Your task to perform on an android device: open app "Microsoft Authenticator" (install if not already installed) Image 0: 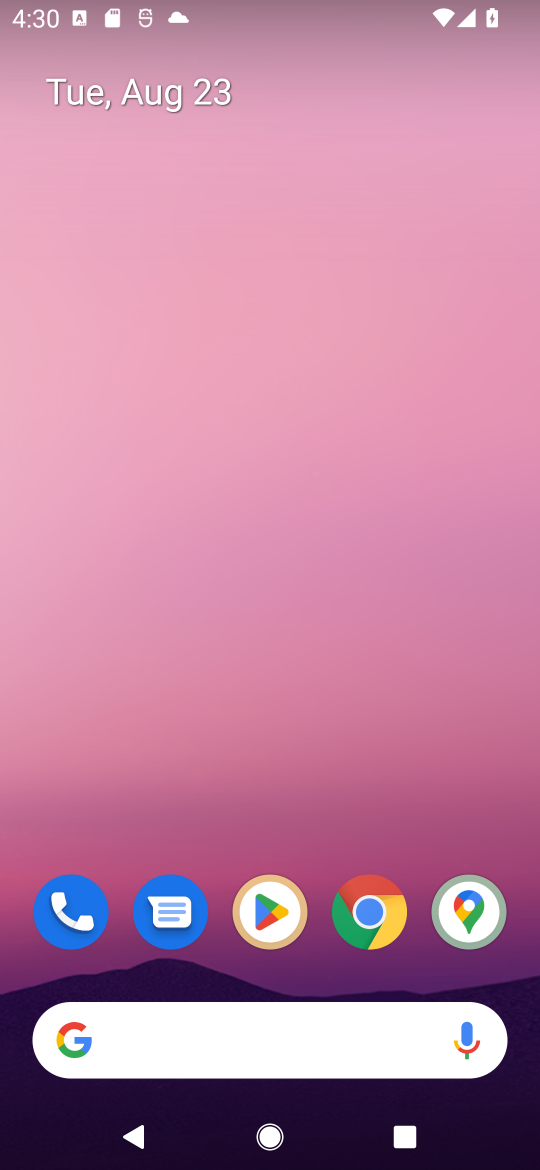
Step 0: drag from (202, 378) to (257, 95)
Your task to perform on an android device: open app "Microsoft Authenticator" (install if not already installed) Image 1: 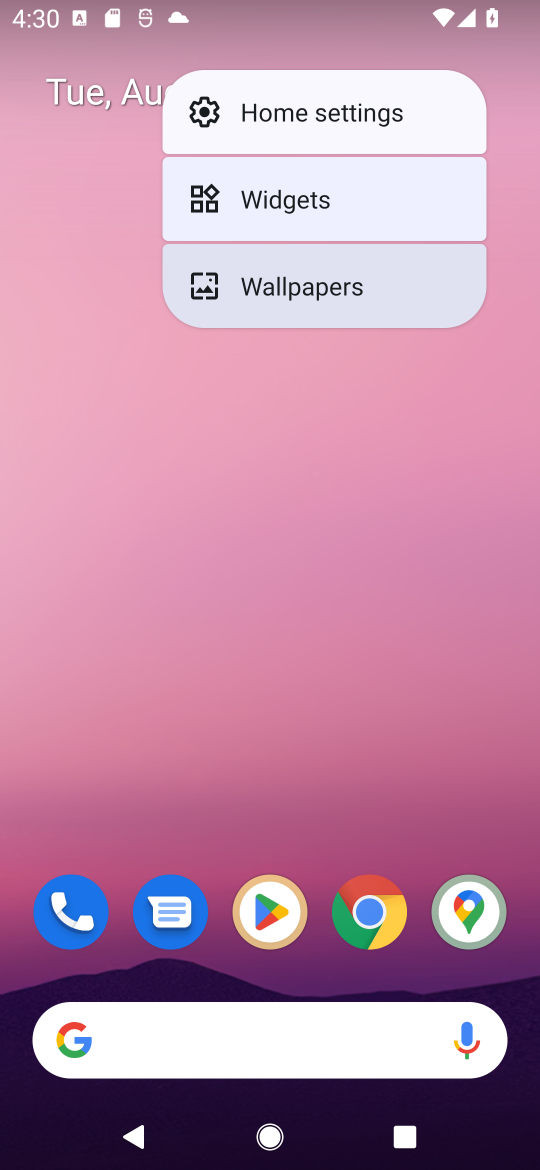
Step 1: drag from (205, 1067) to (218, 23)
Your task to perform on an android device: open app "Microsoft Authenticator" (install if not already installed) Image 2: 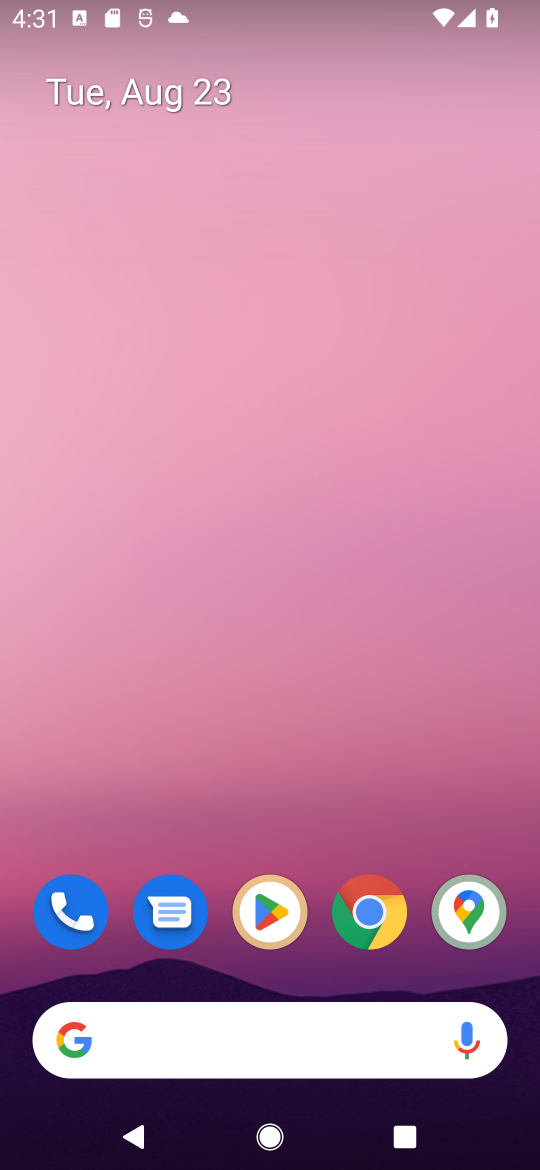
Step 2: click (231, 79)
Your task to perform on an android device: open app "Microsoft Authenticator" (install if not already installed) Image 3: 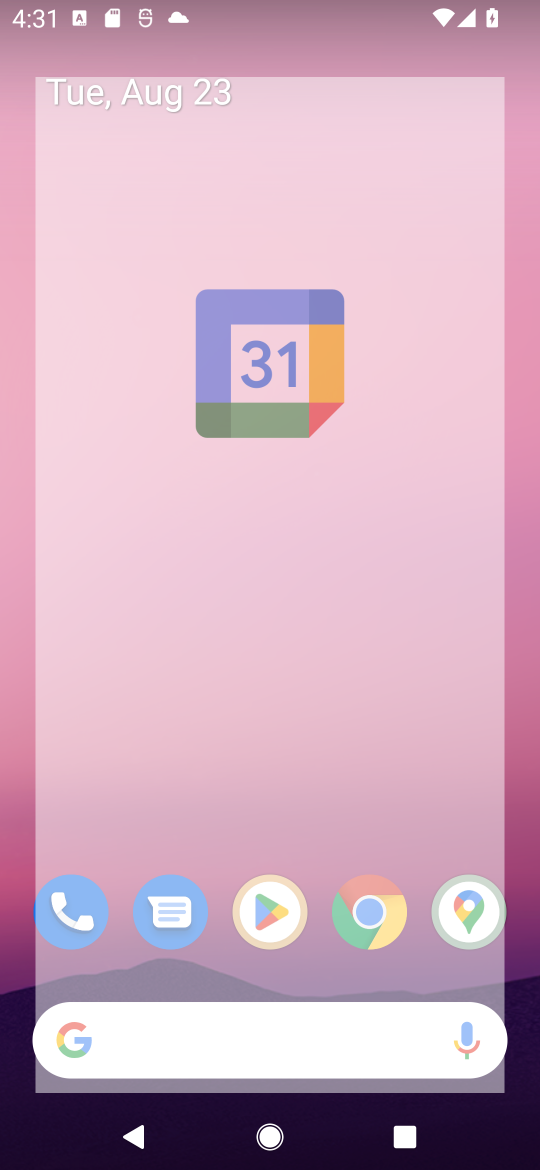
Step 3: drag from (211, 1097) to (439, 473)
Your task to perform on an android device: open app "Microsoft Authenticator" (install if not already installed) Image 4: 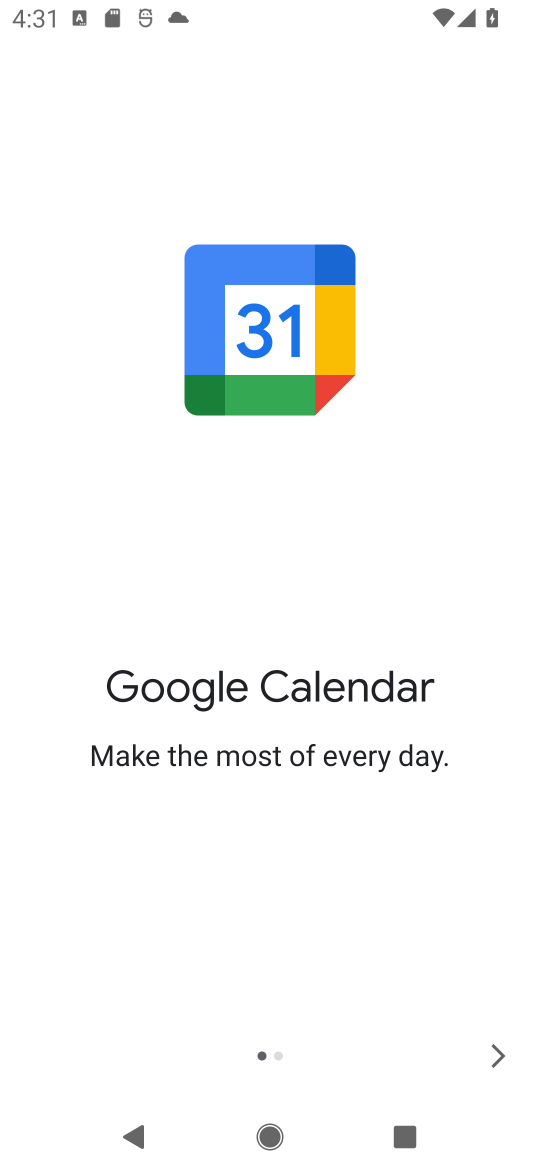
Step 4: press home button
Your task to perform on an android device: open app "Microsoft Authenticator" (install if not already installed) Image 5: 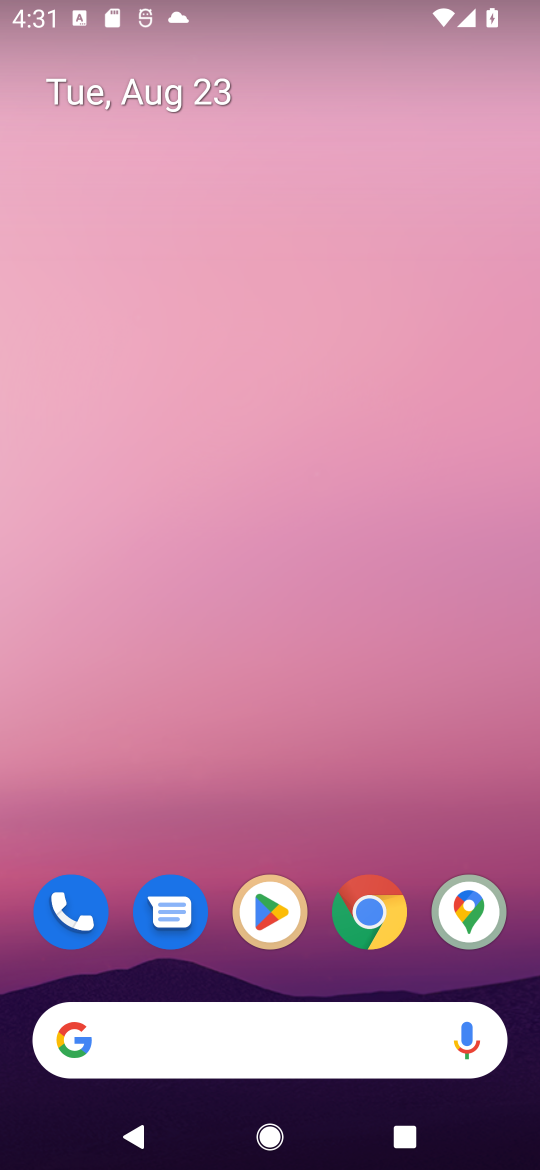
Step 5: drag from (182, 1051) to (313, 140)
Your task to perform on an android device: open app "Microsoft Authenticator" (install if not already installed) Image 6: 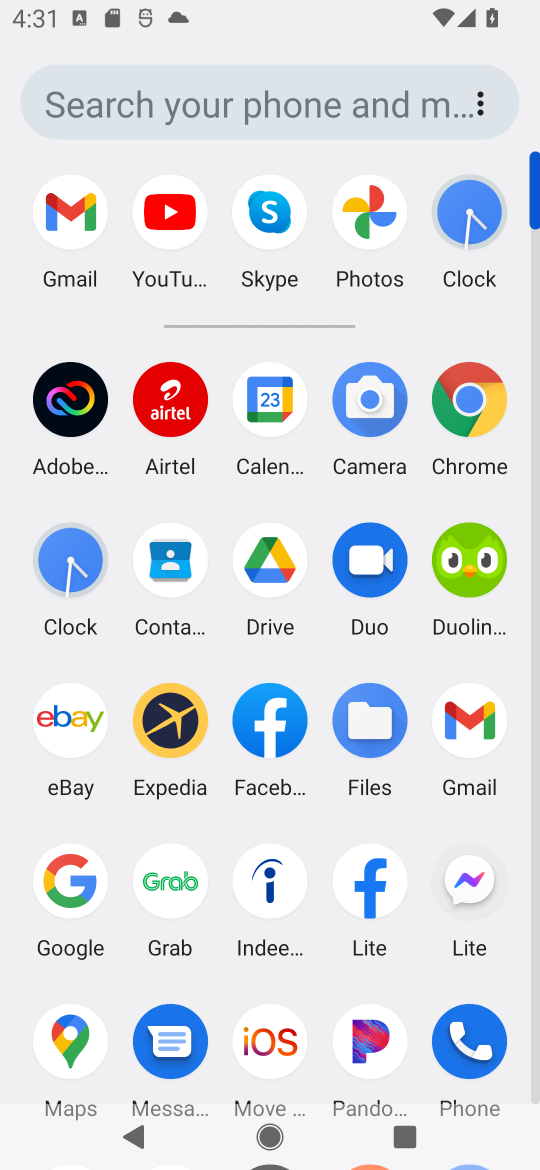
Step 6: drag from (215, 915) to (312, 353)
Your task to perform on an android device: open app "Microsoft Authenticator" (install if not already installed) Image 7: 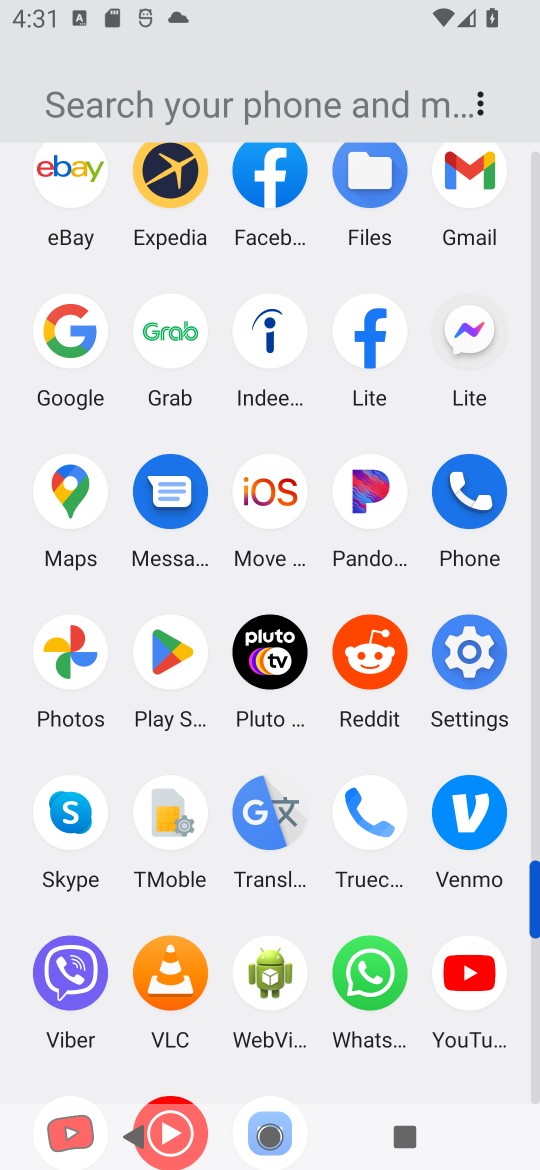
Step 7: click (172, 653)
Your task to perform on an android device: open app "Microsoft Authenticator" (install if not already installed) Image 8: 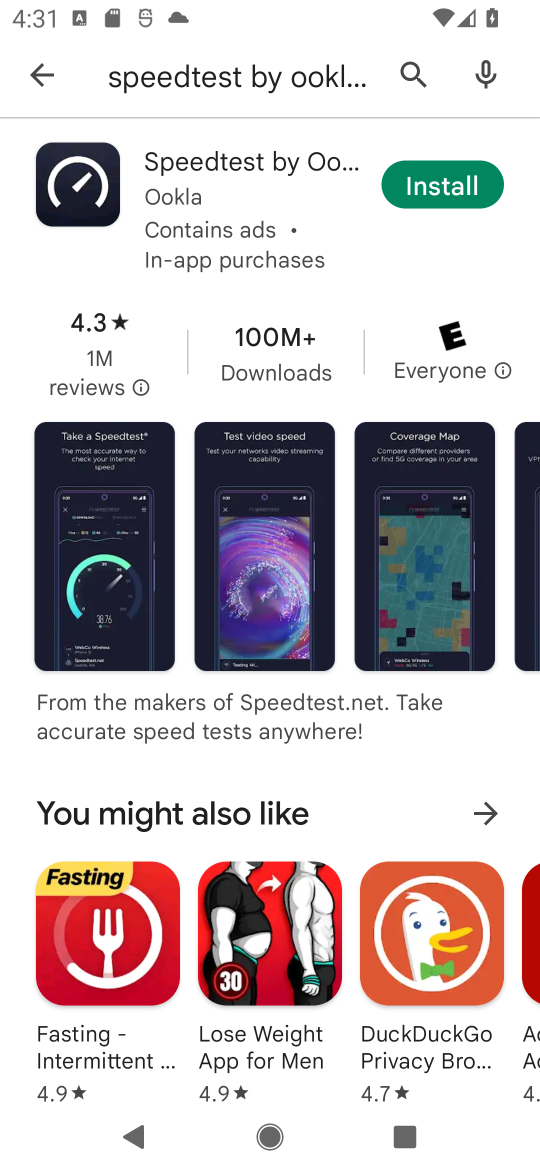
Step 8: press back button
Your task to perform on an android device: open app "Microsoft Authenticator" (install if not already installed) Image 9: 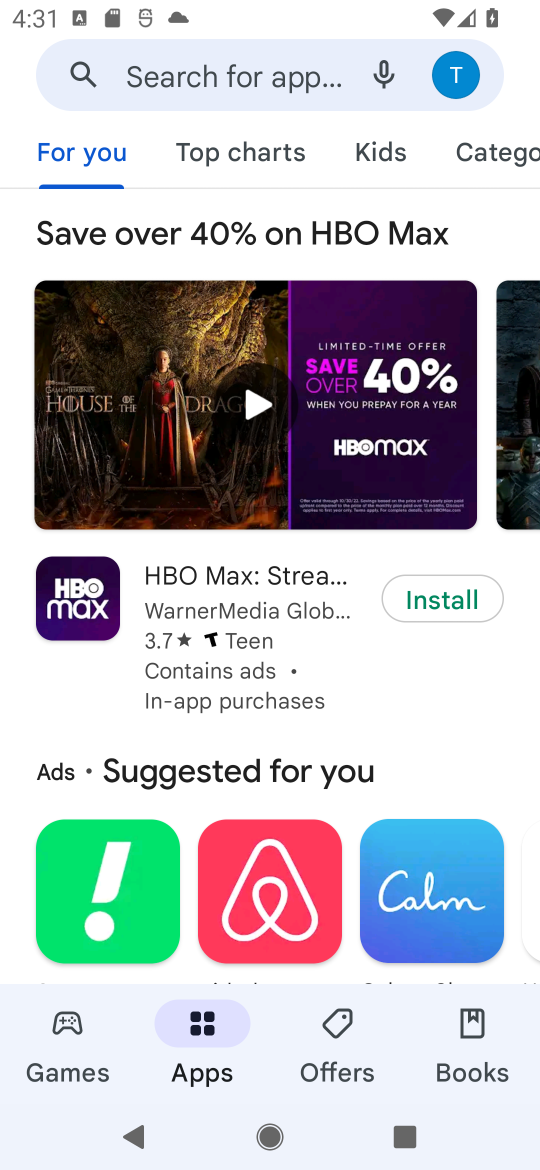
Step 9: click (289, 79)
Your task to perform on an android device: open app "Microsoft Authenticator" (install if not already installed) Image 10: 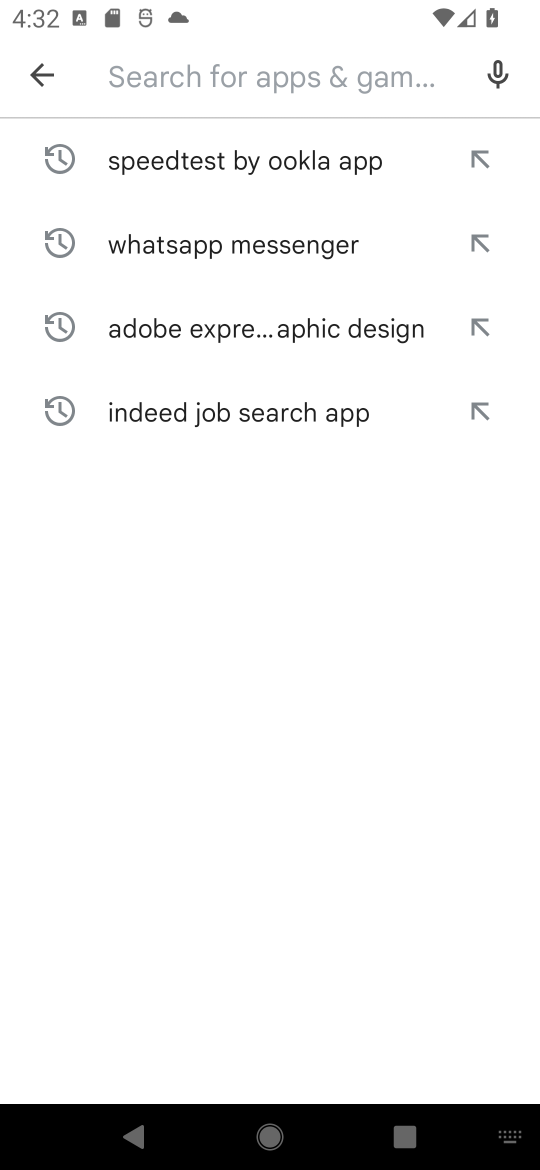
Step 10: click (167, 68)
Your task to perform on an android device: open app "Microsoft Authenticator" (install if not already installed) Image 11: 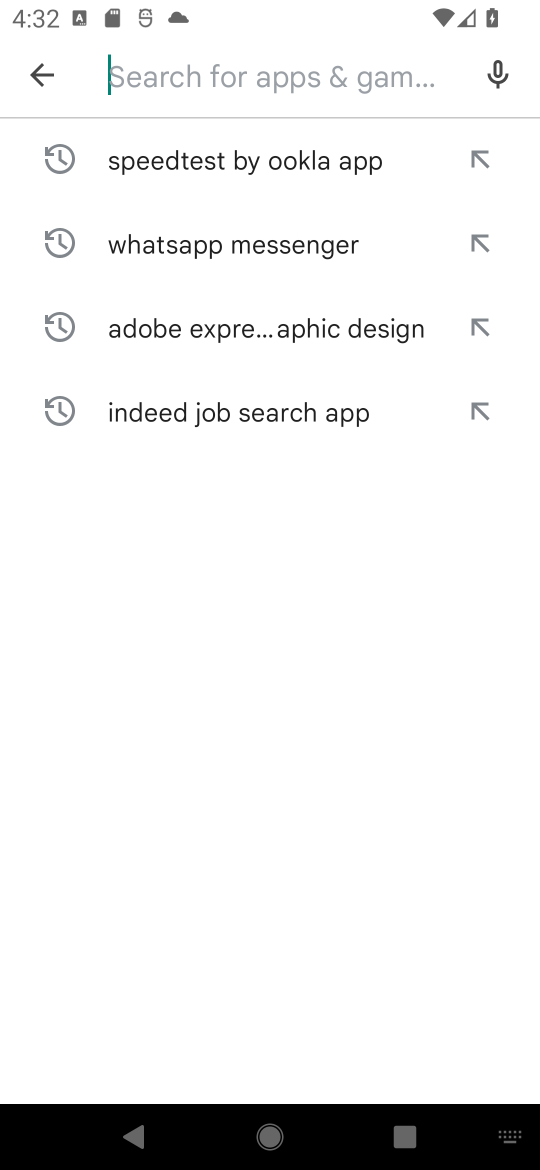
Step 11: type "Microsoft Authenticator"
Your task to perform on an android device: open app "Microsoft Authenticator" (install if not already installed) Image 12: 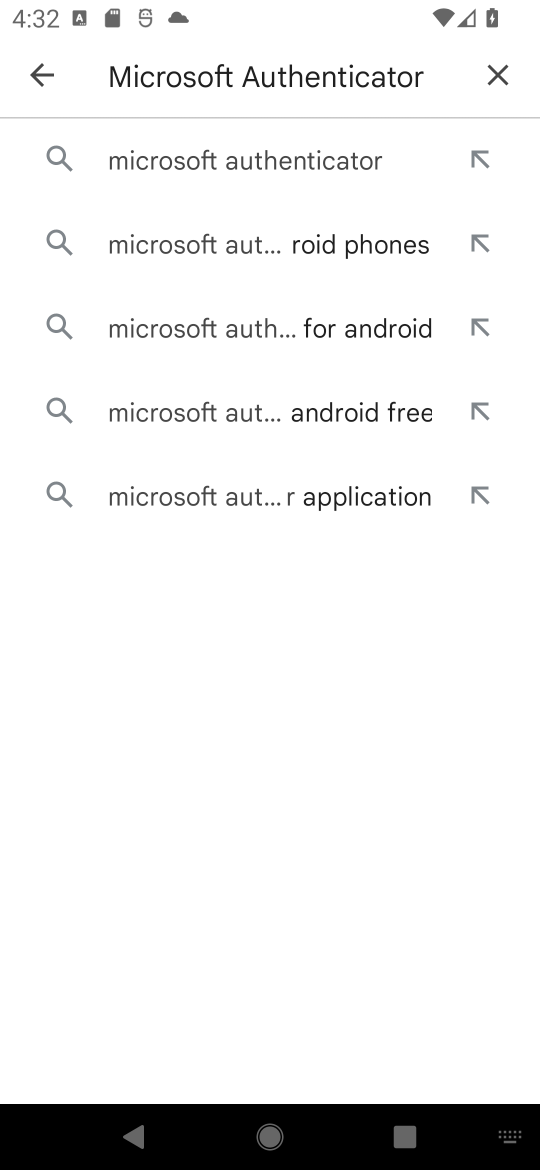
Step 12: click (201, 167)
Your task to perform on an android device: open app "Microsoft Authenticator" (install if not already installed) Image 13: 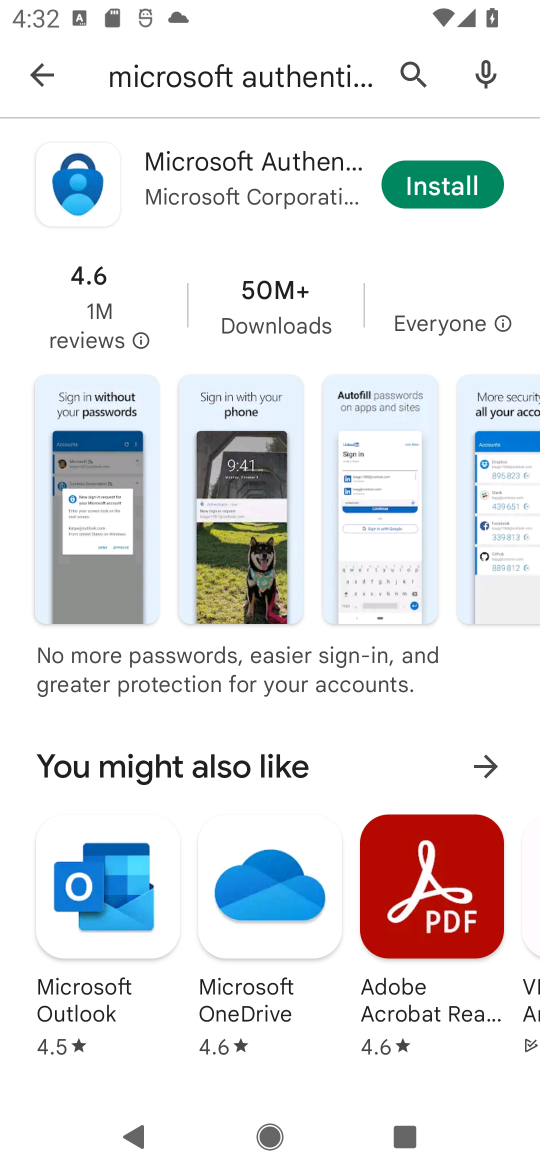
Step 13: click (449, 186)
Your task to perform on an android device: open app "Microsoft Authenticator" (install if not already installed) Image 14: 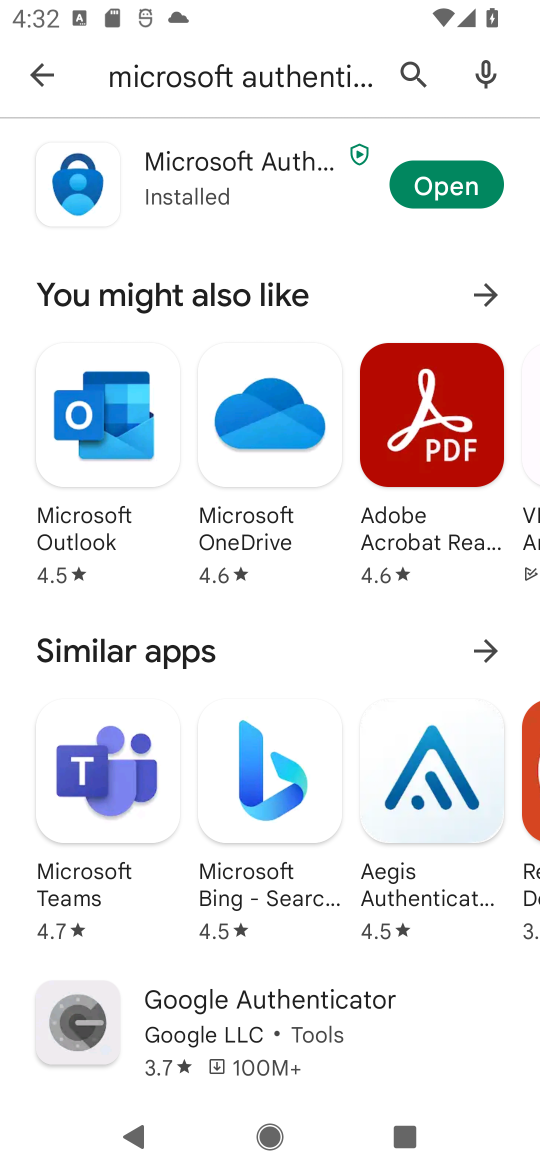
Step 14: click (449, 186)
Your task to perform on an android device: open app "Microsoft Authenticator" (install if not already installed) Image 15: 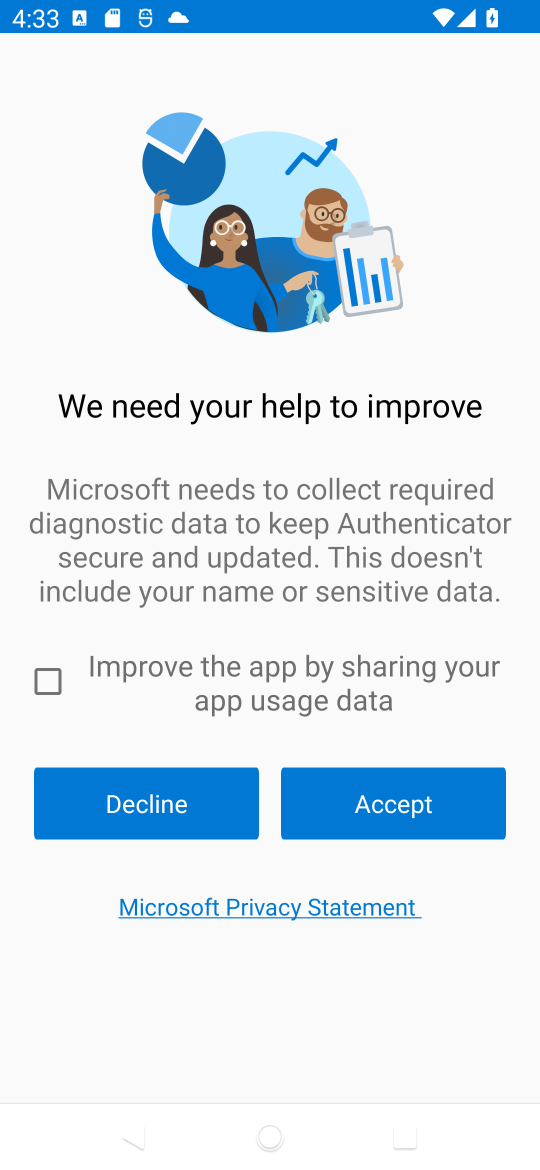
Step 15: click (44, 682)
Your task to perform on an android device: open app "Microsoft Authenticator" (install if not already installed) Image 16: 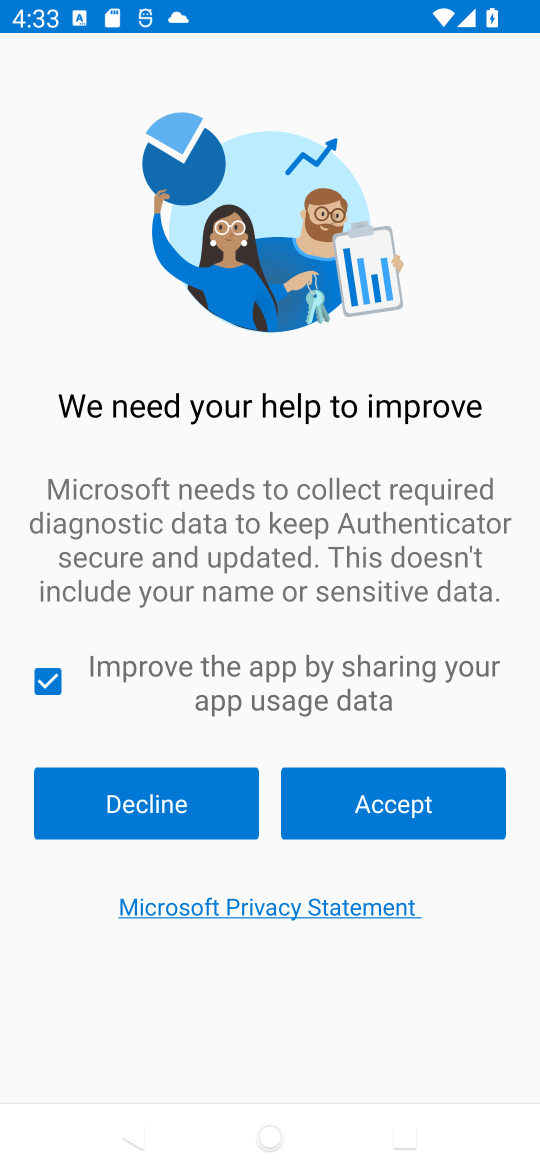
Step 16: click (401, 807)
Your task to perform on an android device: open app "Microsoft Authenticator" (install if not already installed) Image 17: 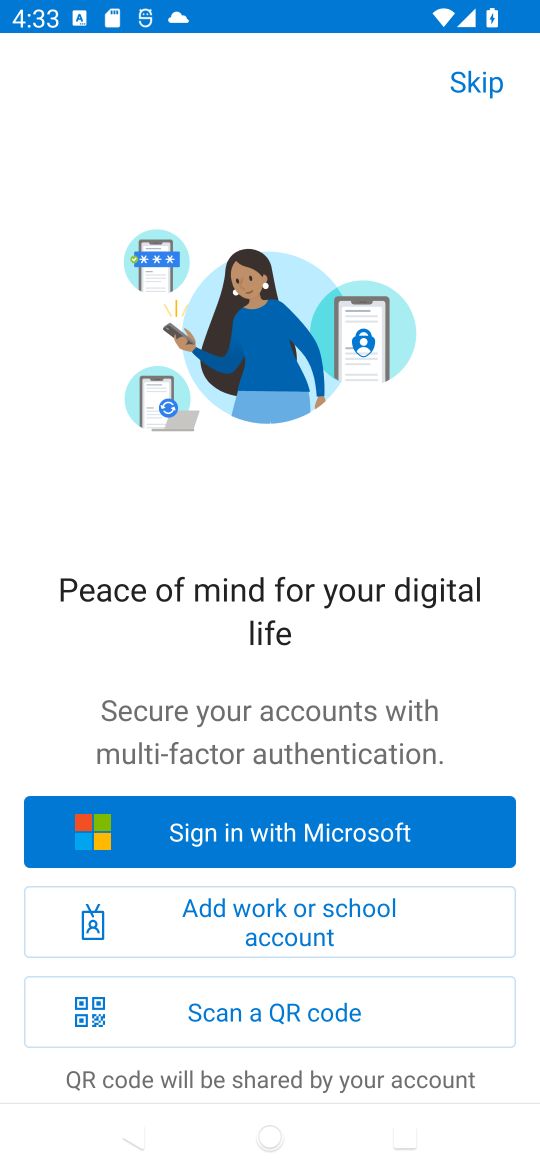
Step 17: task complete